Your task to perform on an android device: What's the weather going to be tomorrow? Image 0: 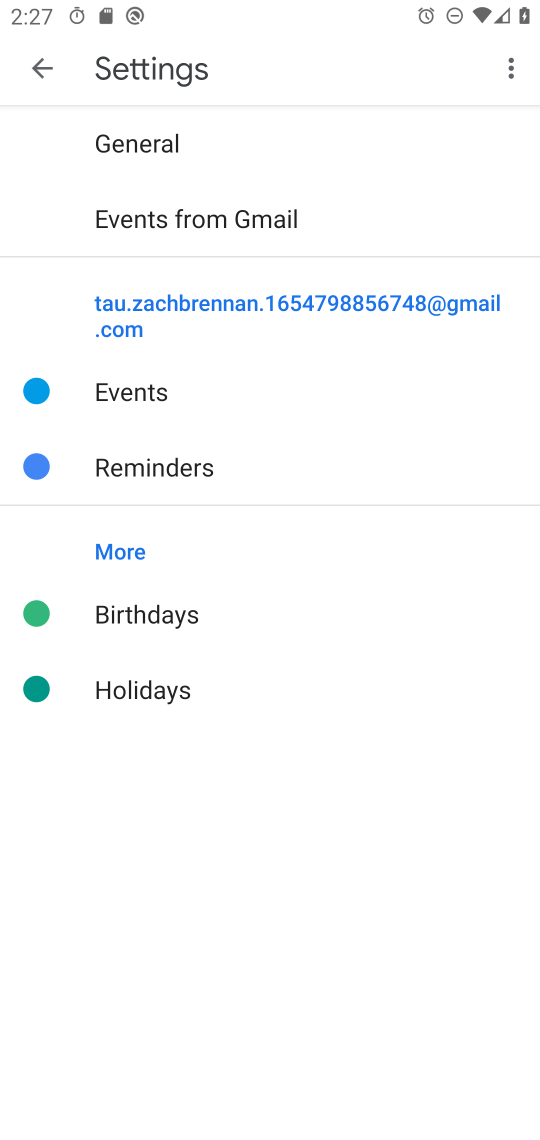
Step 0: press home button
Your task to perform on an android device: What's the weather going to be tomorrow? Image 1: 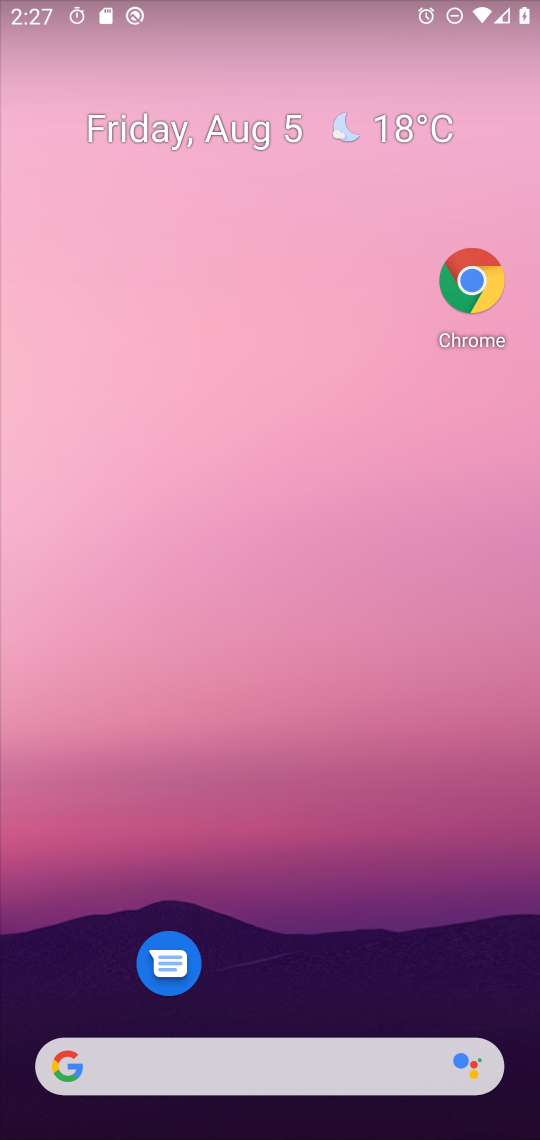
Step 1: drag from (386, 802) to (119, 57)
Your task to perform on an android device: What's the weather going to be tomorrow? Image 2: 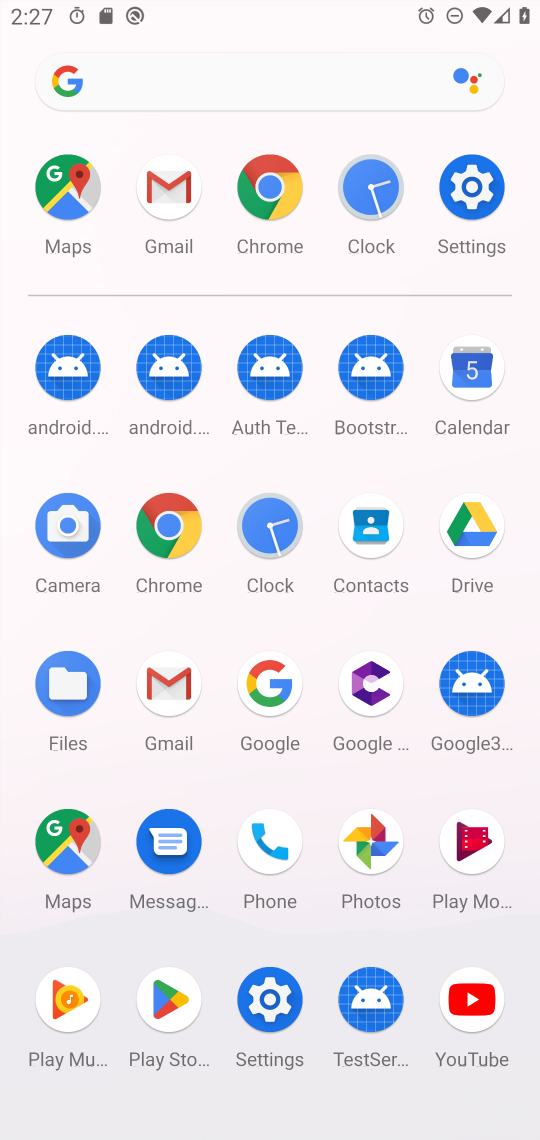
Step 2: click (260, 669)
Your task to perform on an android device: What's the weather going to be tomorrow? Image 3: 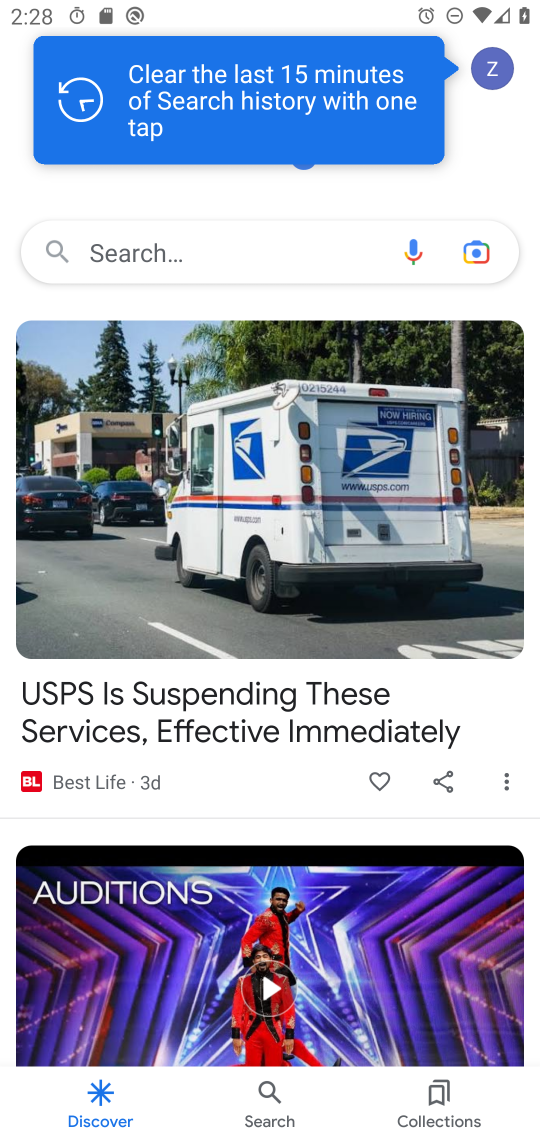
Step 3: click (131, 260)
Your task to perform on an android device: What's the weather going to be tomorrow? Image 4: 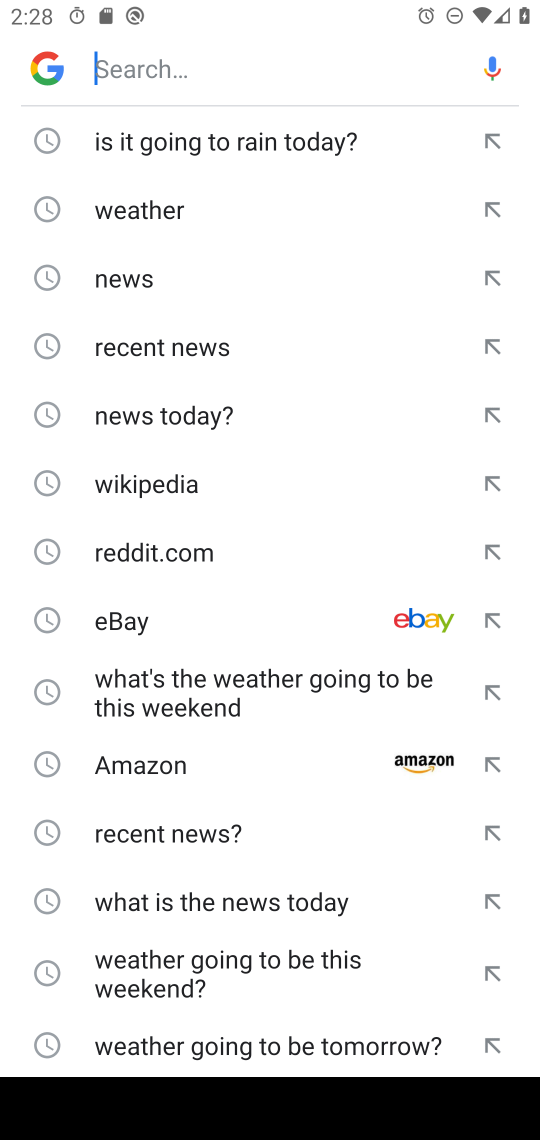
Step 4: click (144, 220)
Your task to perform on an android device: What's the weather going to be tomorrow? Image 5: 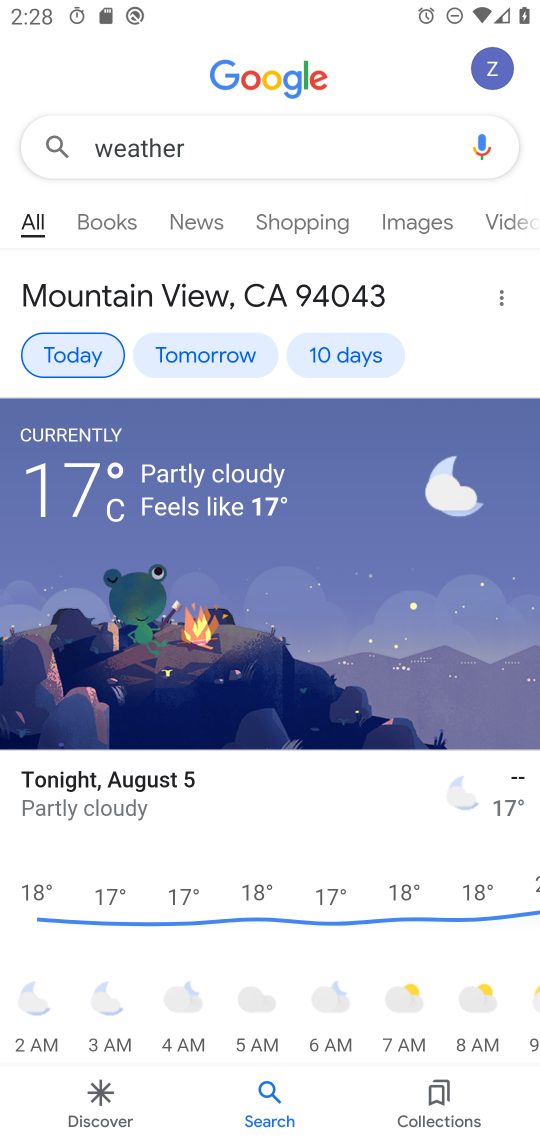
Step 5: task complete